Your task to perform on an android device: Open CNN.com Image 0: 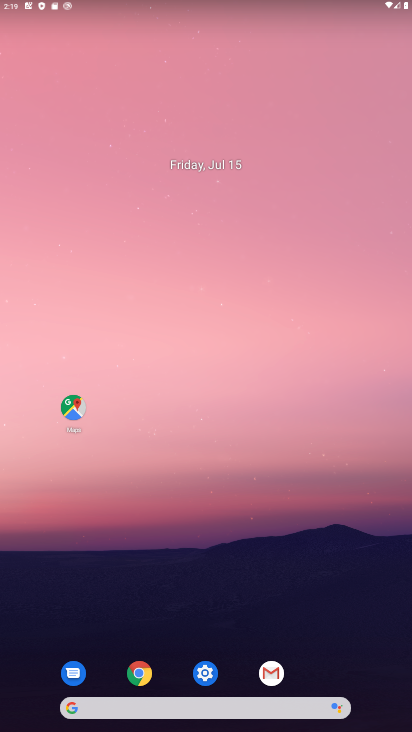
Step 0: press home button
Your task to perform on an android device: Open CNN.com Image 1: 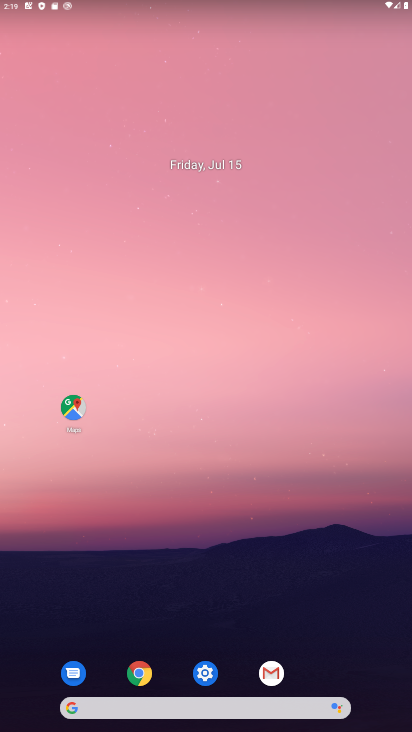
Step 1: click (140, 674)
Your task to perform on an android device: Open CNN.com Image 2: 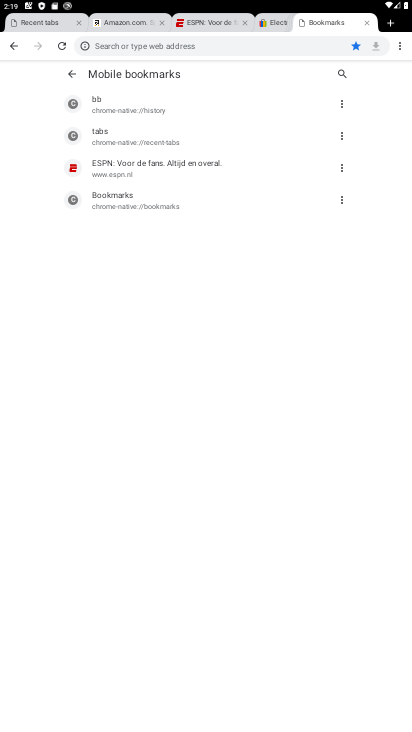
Step 2: click (385, 24)
Your task to perform on an android device: Open CNN.com Image 3: 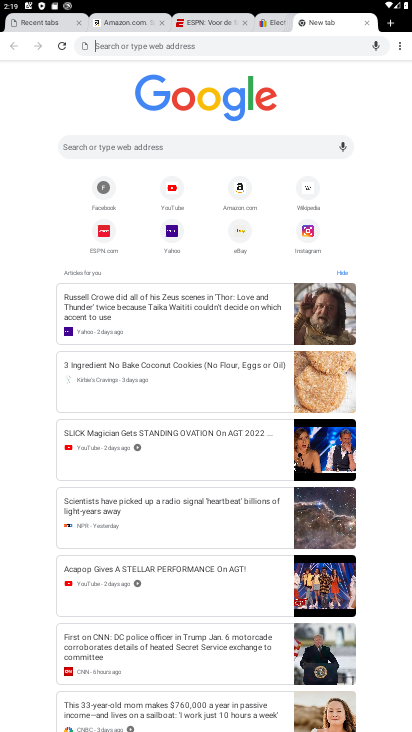
Step 3: click (114, 41)
Your task to perform on an android device: Open CNN.com Image 4: 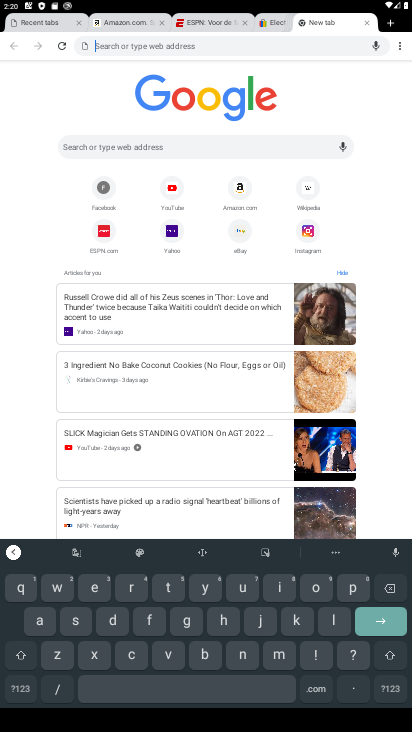
Step 4: click (128, 655)
Your task to perform on an android device: Open CNN.com Image 5: 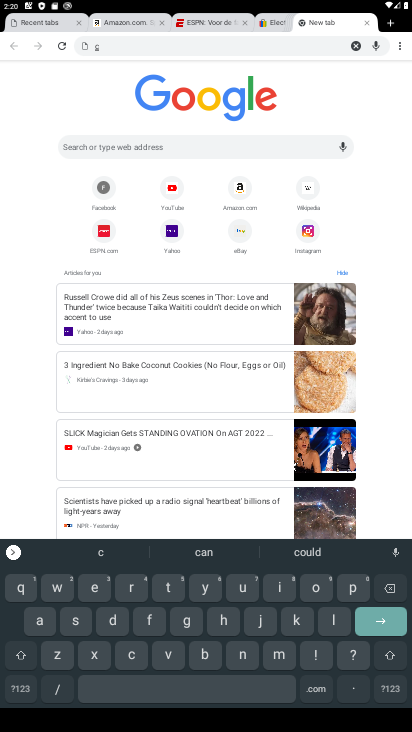
Step 5: click (246, 657)
Your task to perform on an android device: Open CNN.com Image 6: 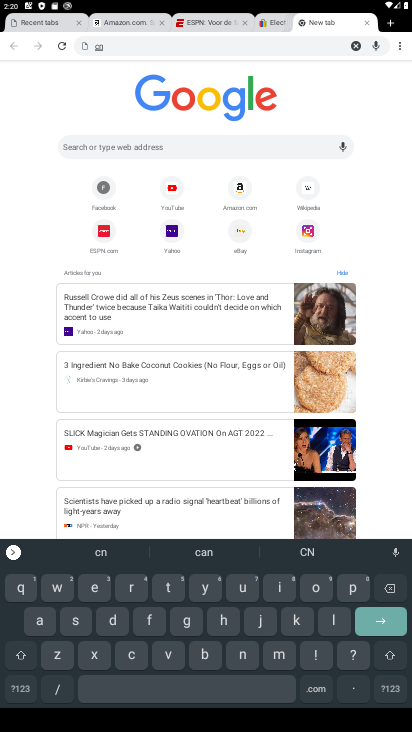
Step 6: click (246, 657)
Your task to perform on an android device: Open CNN.com Image 7: 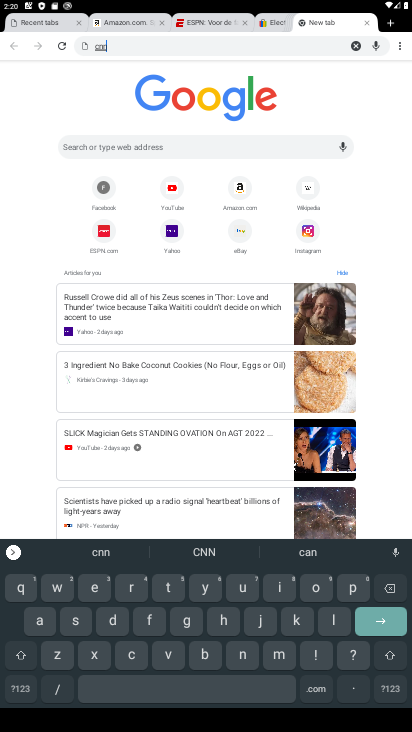
Step 7: click (385, 622)
Your task to perform on an android device: Open CNN.com Image 8: 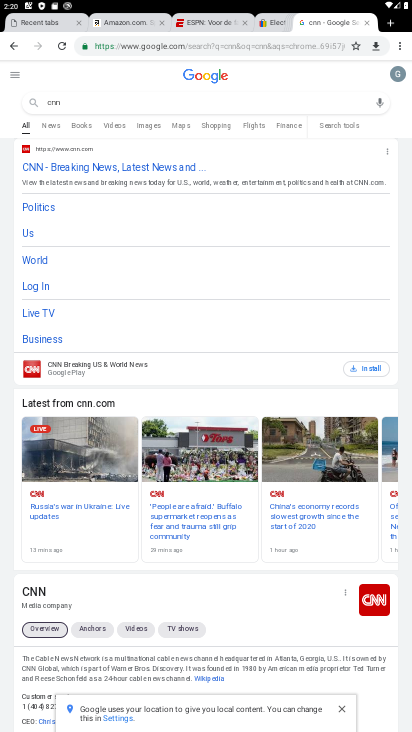
Step 8: click (94, 161)
Your task to perform on an android device: Open CNN.com Image 9: 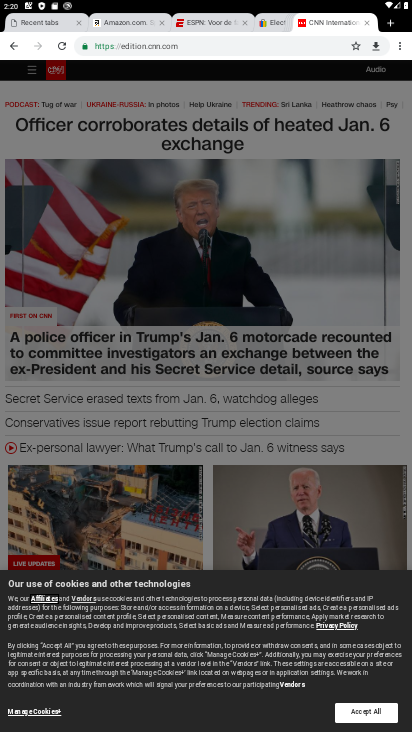
Step 9: click (355, 713)
Your task to perform on an android device: Open CNN.com Image 10: 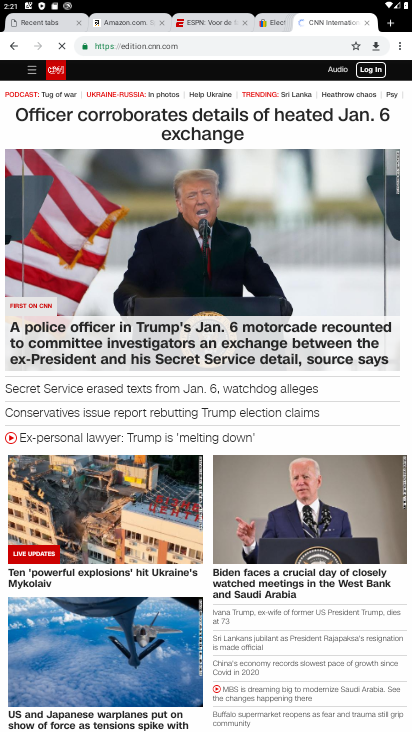
Step 10: task complete